Your task to perform on an android device: Play the last video I watched on Youtube Image 0: 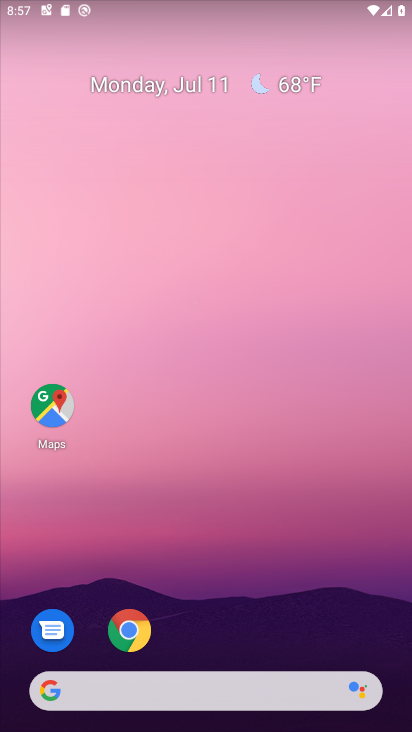
Step 0: drag from (185, 652) to (172, 6)
Your task to perform on an android device: Play the last video I watched on Youtube Image 1: 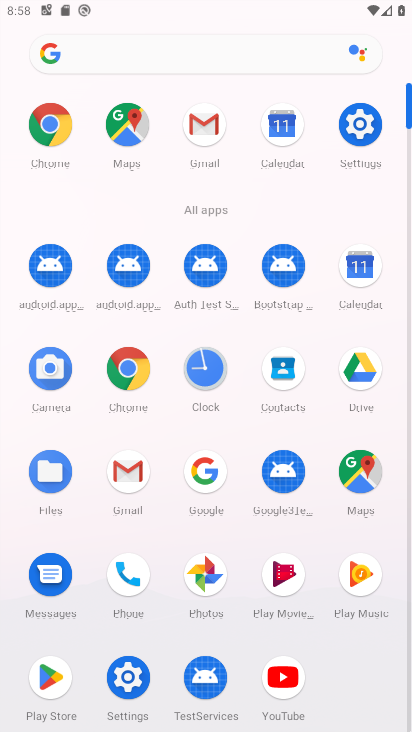
Step 1: click (278, 681)
Your task to perform on an android device: Play the last video I watched on Youtube Image 2: 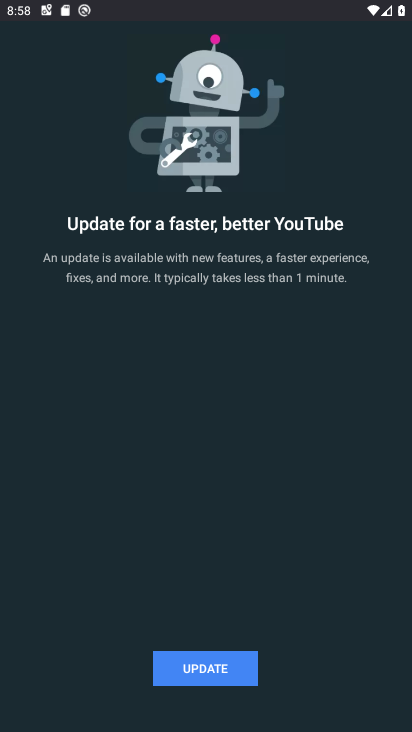
Step 2: click (215, 668)
Your task to perform on an android device: Play the last video I watched on Youtube Image 3: 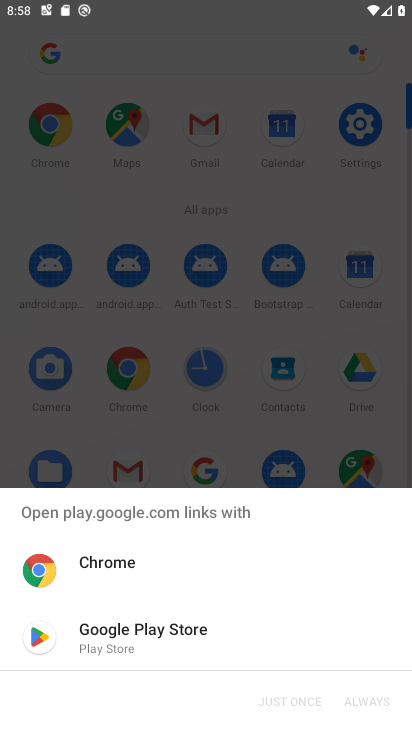
Step 3: click (136, 633)
Your task to perform on an android device: Play the last video I watched on Youtube Image 4: 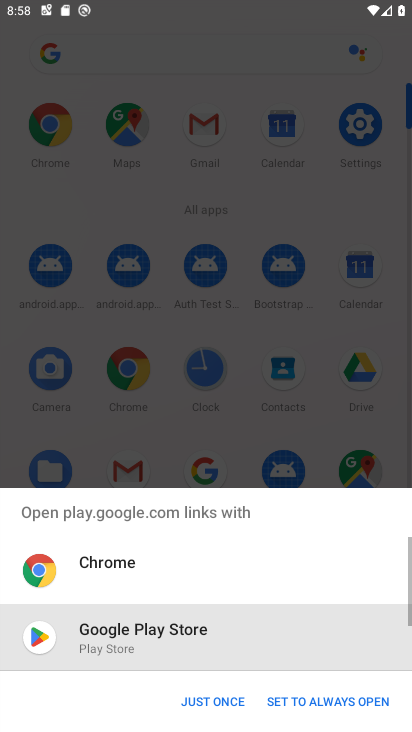
Step 4: click (210, 702)
Your task to perform on an android device: Play the last video I watched on Youtube Image 5: 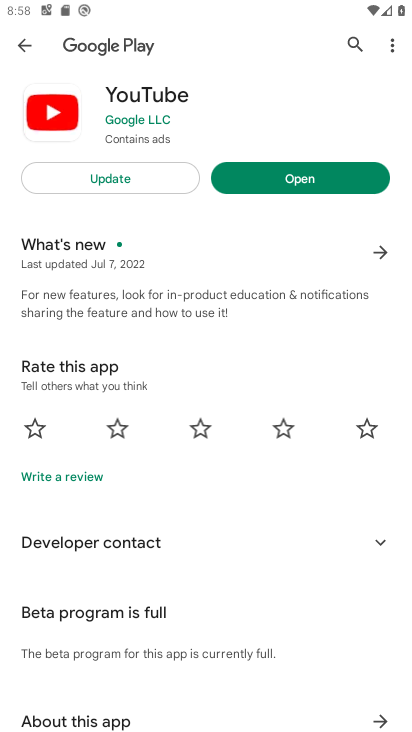
Step 5: click (148, 175)
Your task to perform on an android device: Play the last video I watched on Youtube Image 6: 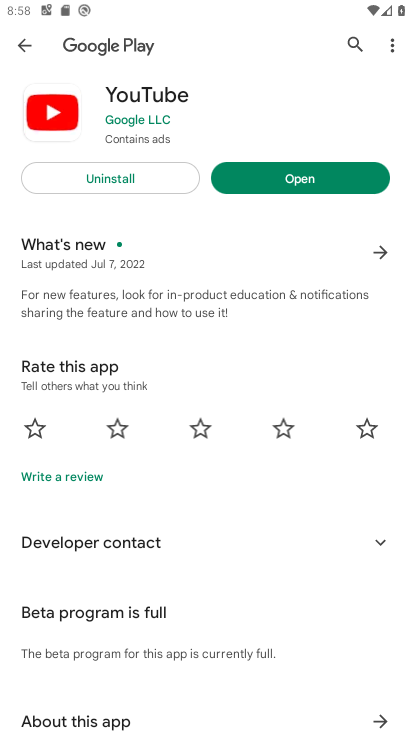
Step 6: click (263, 175)
Your task to perform on an android device: Play the last video I watched on Youtube Image 7: 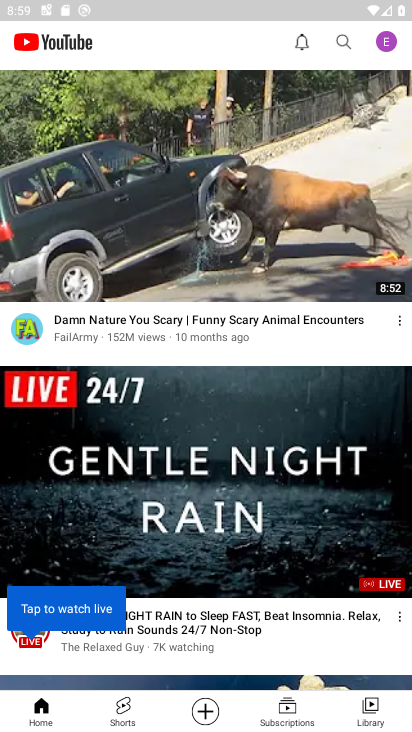
Step 7: click (365, 707)
Your task to perform on an android device: Play the last video I watched on Youtube Image 8: 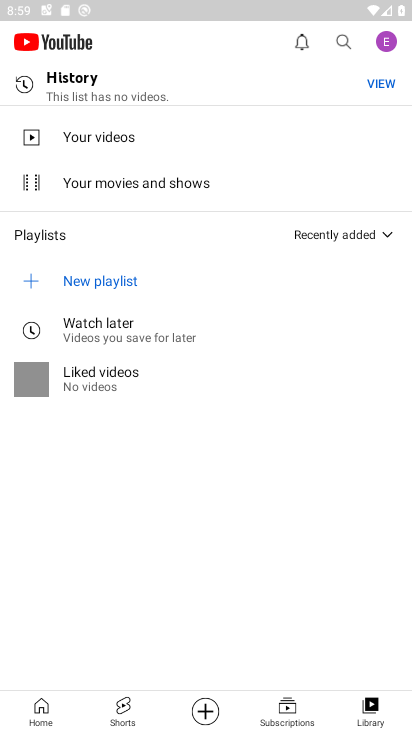
Step 8: task complete